Your task to perform on an android device: choose inbox layout in the gmail app Image 0: 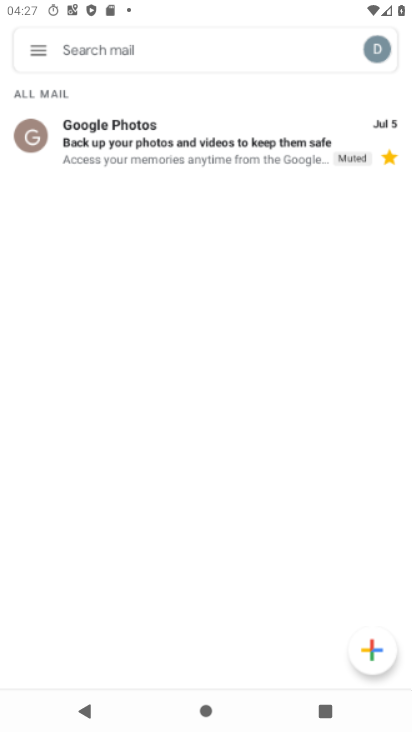
Step 0: press home button
Your task to perform on an android device: choose inbox layout in the gmail app Image 1: 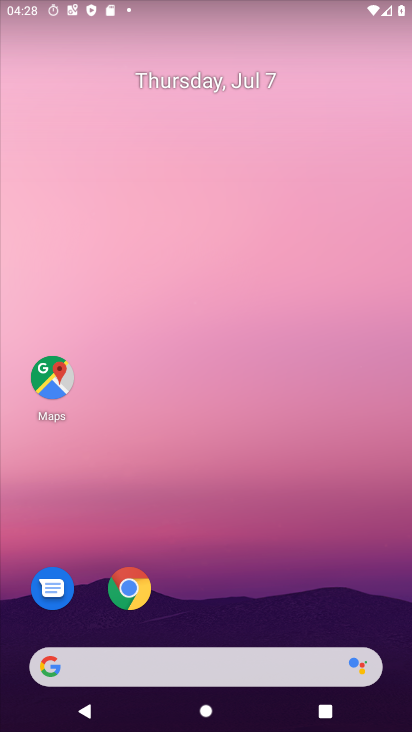
Step 1: drag from (303, 606) to (342, 137)
Your task to perform on an android device: choose inbox layout in the gmail app Image 2: 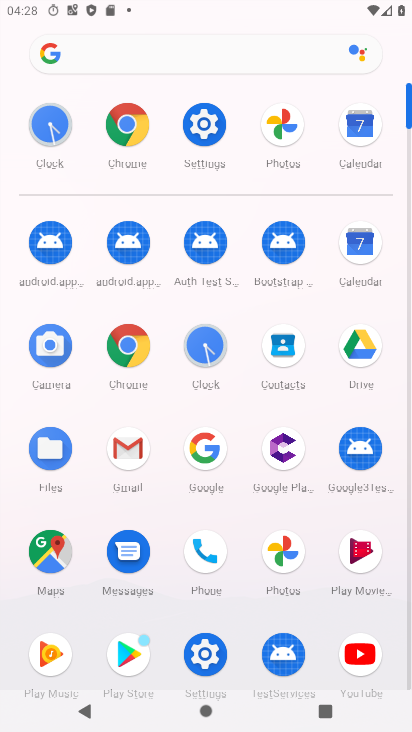
Step 2: click (136, 431)
Your task to perform on an android device: choose inbox layout in the gmail app Image 3: 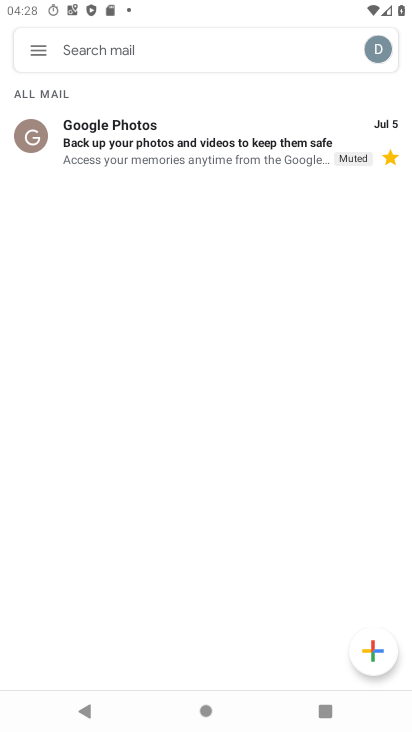
Step 3: click (40, 52)
Your task to perform on an android device: choose inbox layout in the gmail app Image 4: 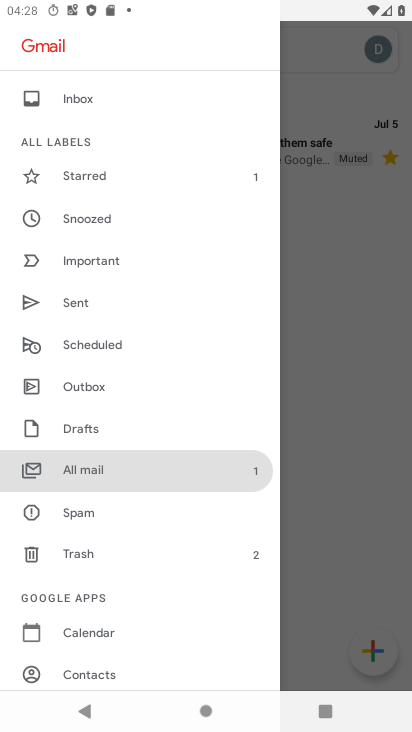
Step 4: drag from (155, 643) to (161, 382)
Your task to perform on an android device: choose inbox layout in the gmail app Image 5: 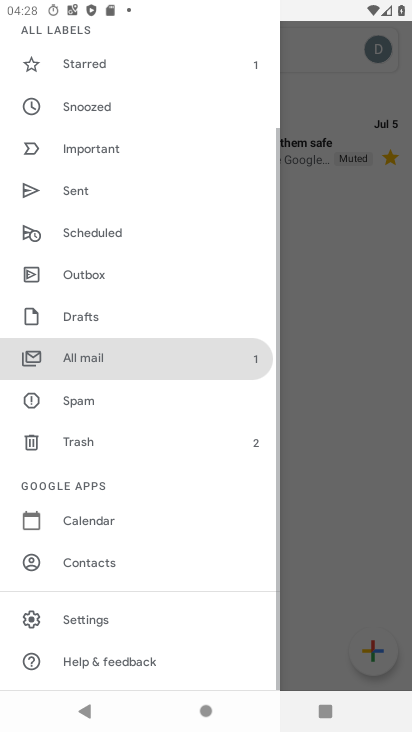
Step 5: click (75, 622)
Your task to perform on an android device: choose inbox layout in the gmail app Image 6: 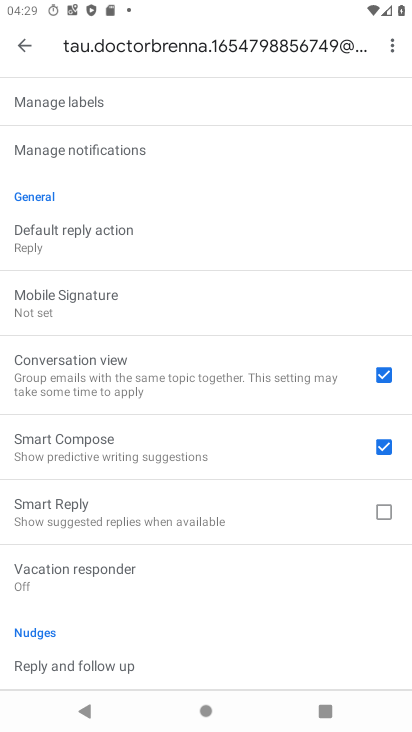
Step 6: drag from (208, 195) to (164, 593)
Your task to perform on an android device: choose inbox layout in the gmail app Image 7: 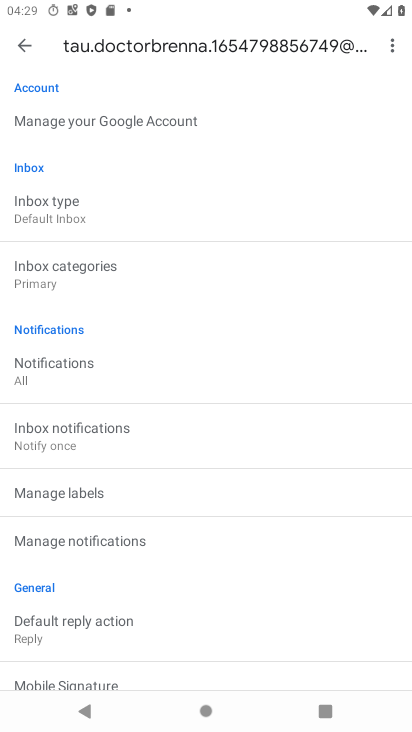
Step 7: click (47, 200)
Your task to perform on an android device: choose inbox layout in the gmail app Image 8: 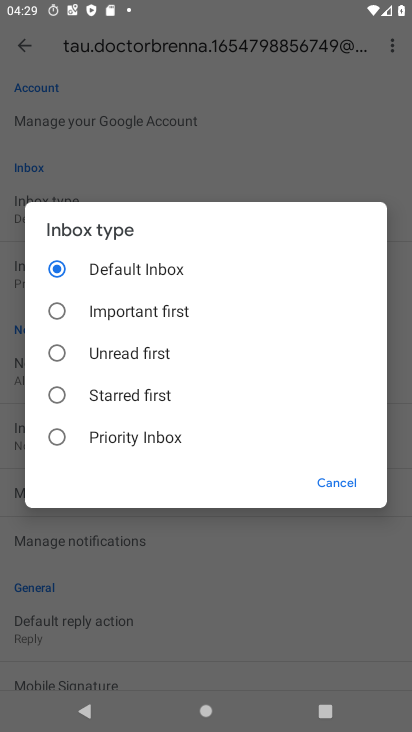
Step 8: click (61, 394)
Your task to perform on an android device: choose inbox layout in the gmail app Image 9: 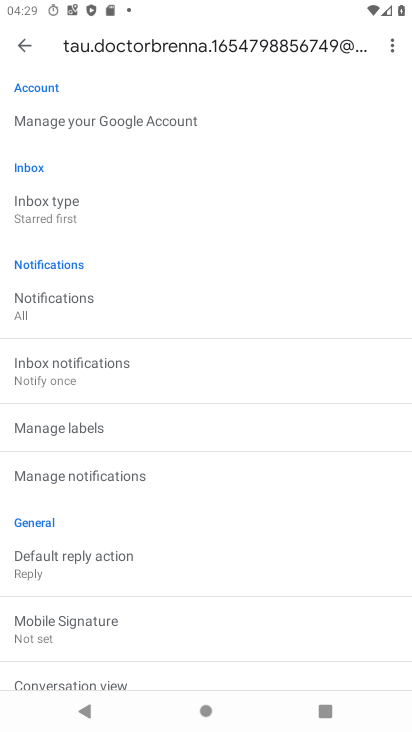
Step 9: task complete